Your task to perform on an android device: Open wifi settings Image 0: 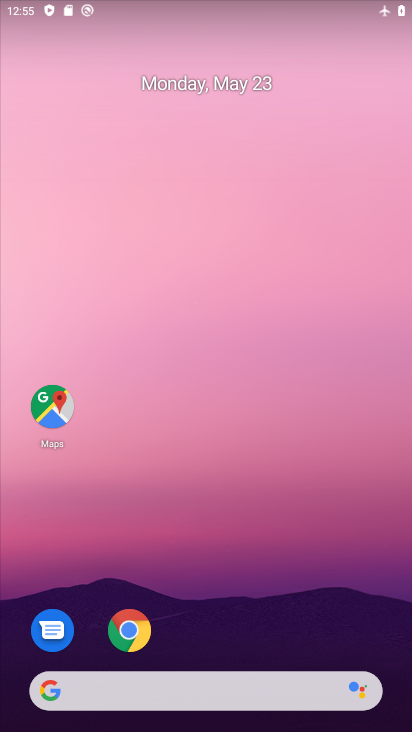
Step 0: press home button
Your task to perform on an android device: Open wifi settings Image 1: 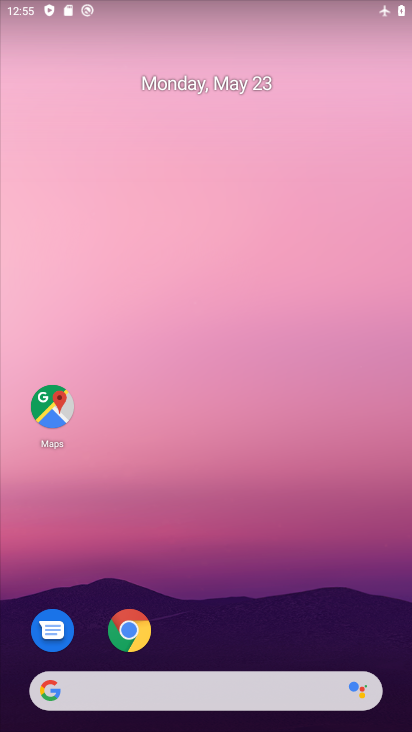
Step 1: drag from (298, 606) to (340, 142)
Your task to perform on an android device: Open wifi settings Image 2: 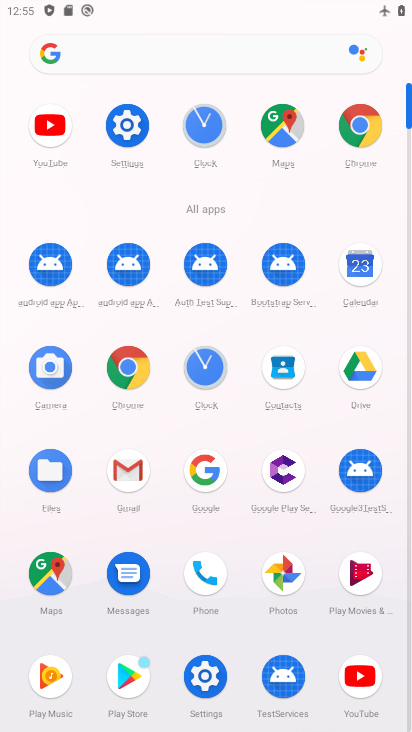
Step 2: click (216, 665)
Your task to perform on an android device: Open wifi settings Image 3: 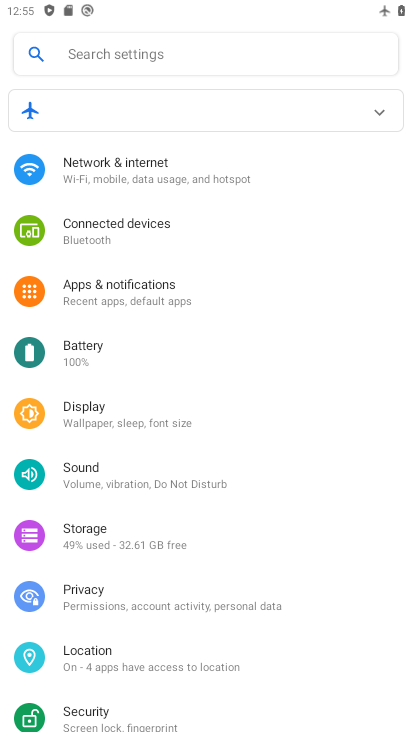
Step 3: click (144, 110)
Your task to perform on an android device: Open wifi settings Image 4: 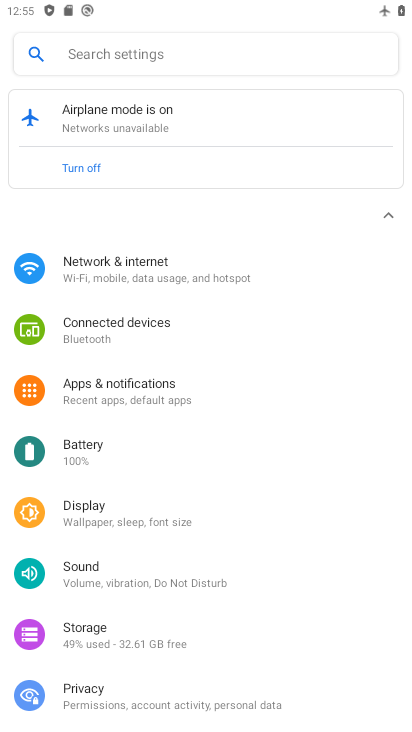
Step 4: click (103, 169)
Your task to perform on an android device: Open wifi settings Image 5: 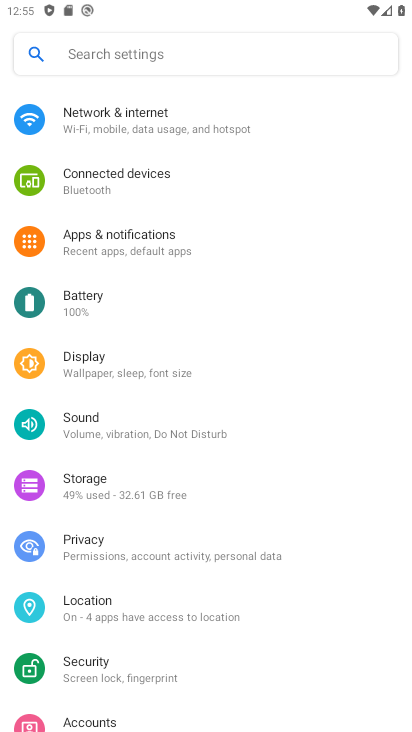
Step 5: click (137, 119)
Your task to perform on an android device: Open wifi settings Image 6: 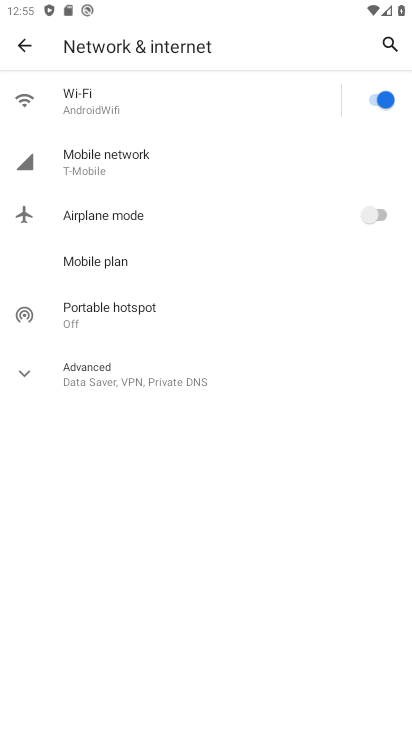
Step 6: click (150, 103)
Your task to perform on an android device: Open wifi settings Image 7: 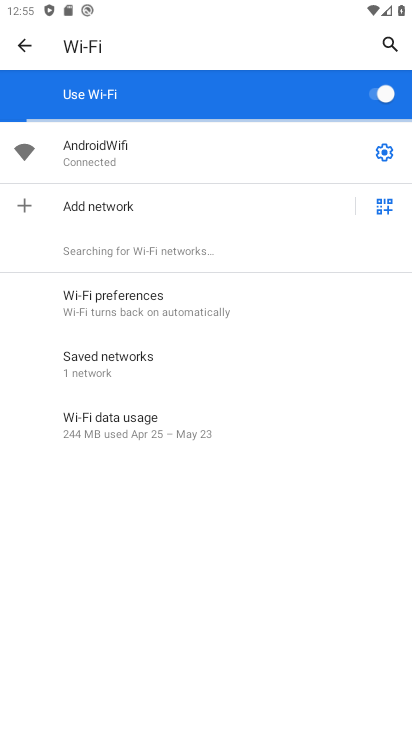
Step 7: click (384, 153)
Your task to perform on an android device: Open wifi settings Image 8: 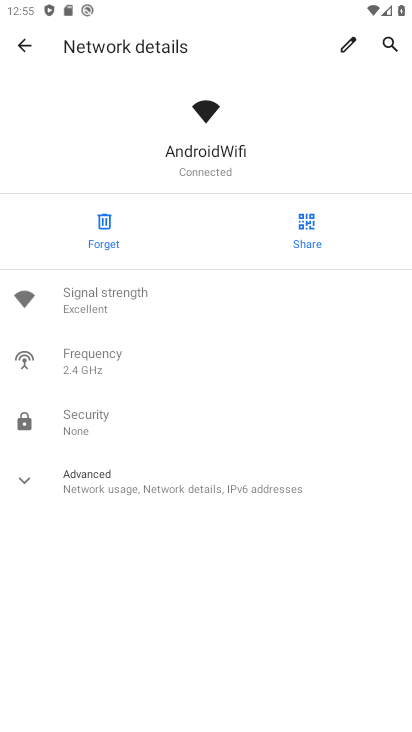
Step 8: task complete